Your task to perform on an android device: visit the assistant section in the google photos Image 0: 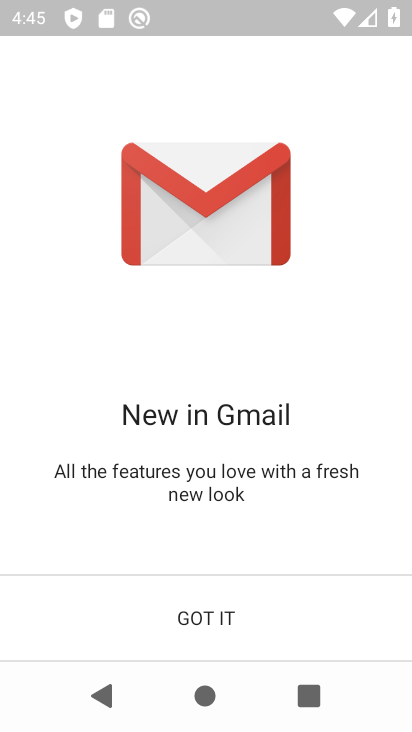
Step 0: press home button
Your task to perform on an android device: visit the assistant section in the google photos Image 1: 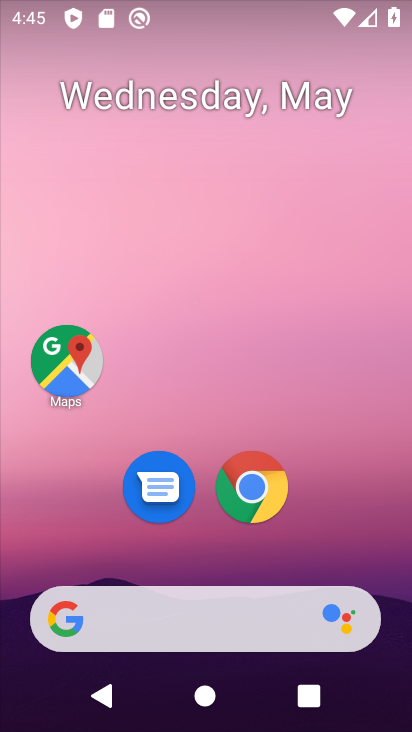
Step 1: drag from (336, 546) to (335, 71)
Your task to perform on an android device: visit the assistant section in the google photos Image 2: 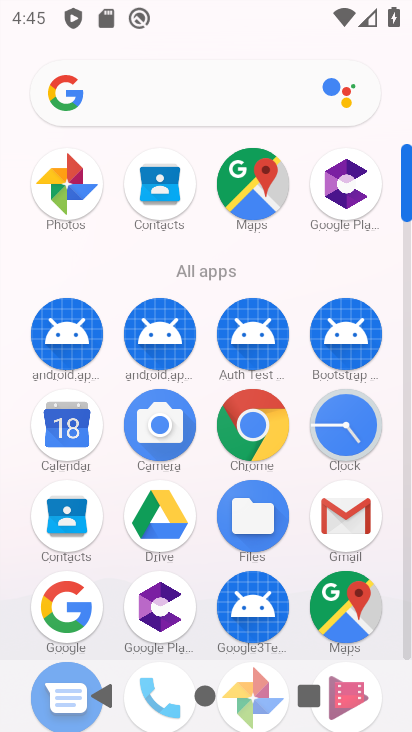
Step 2: click (65, 223)
Your task to perform on an android device: visit the assistant section in the google photos Image 3: 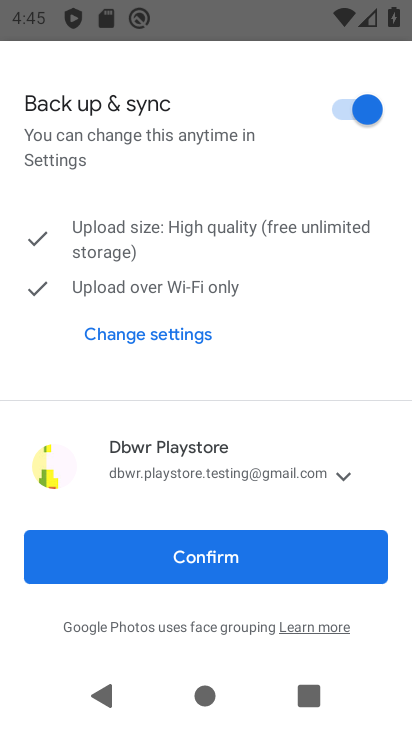
Step 3: click (180, 571)
Your task to perform on an android device: visit the assistant section in the google photos Image 4: 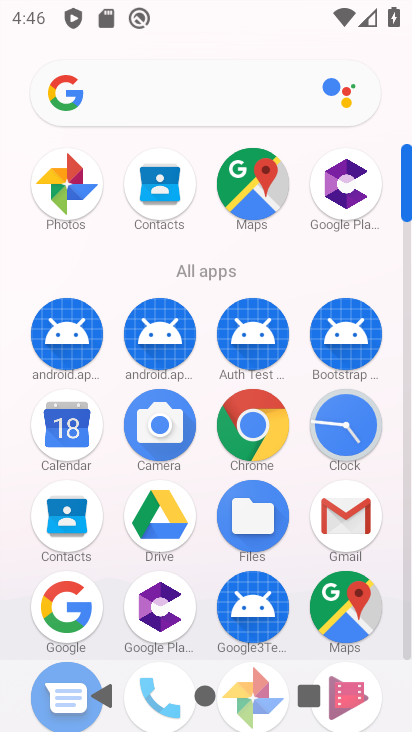
Step 4: click (72, 221)
Your task to perform on an android device: visit the assistant section in the google photos Image 5: 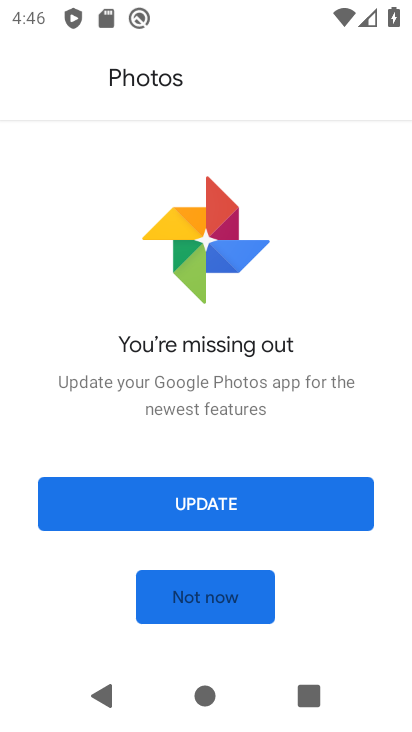
Step 5: click (233, 501)
Your task to perform on an android device: visit the assistant section in the google photos Image 6: 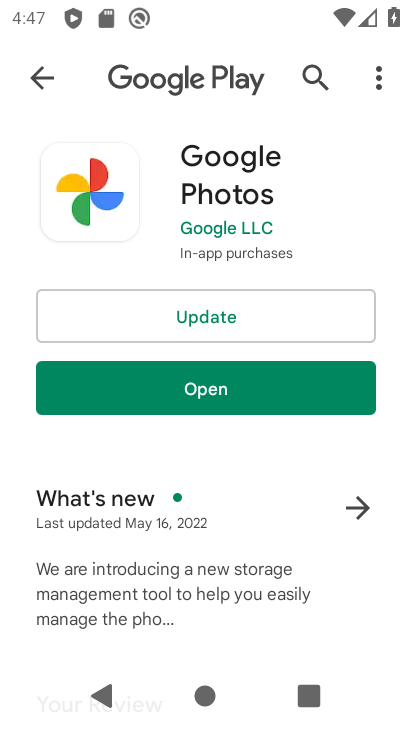
Step 6: click (224, 328)
Your task to perform on an android device: visit the assistant section in the google photos Image 7: 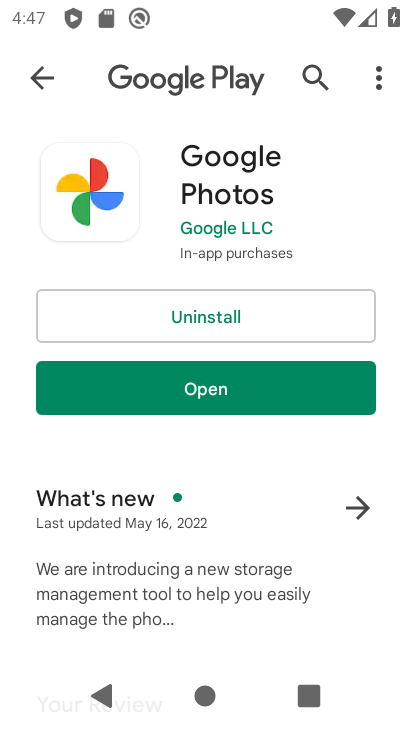
Step 7: click (281, 384)
Your task to perform on an android device: visit the assistant section in the google photos Image 8: 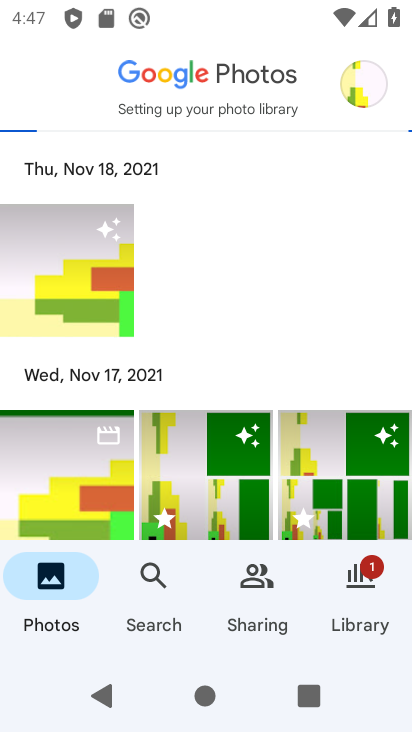
Step 8: click (377, 599)
Your task to perform on an android device: visit the assistant section in the google photos Image 9: 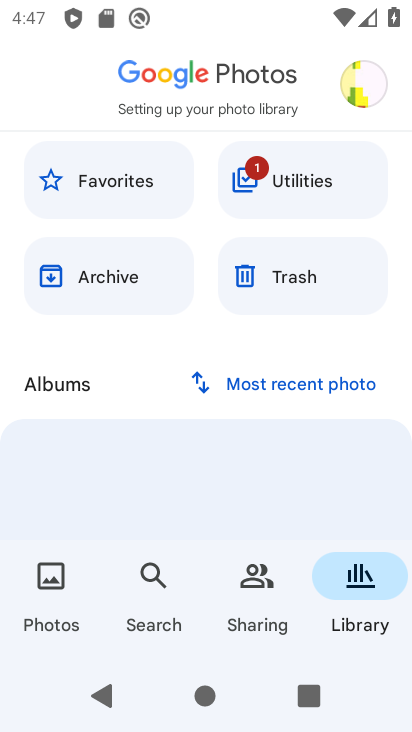
Step 9: click (232, 199)
Your task to perform on an android device: visit the assistant section in the google photos Image 10: 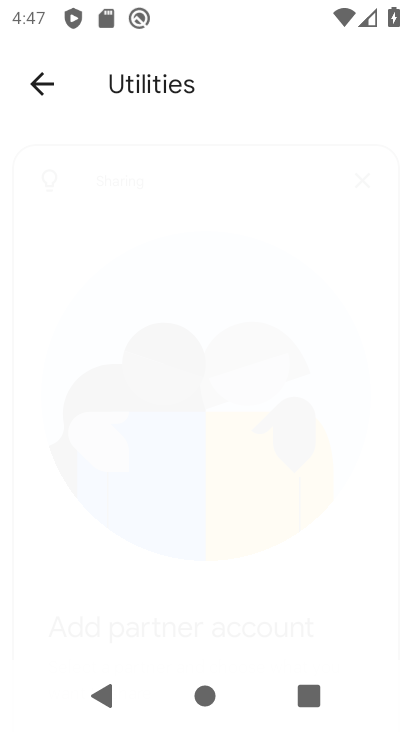
Step 10: task complete